Your task to perform on an android device: turn pop-ups on in chrome Image 0: 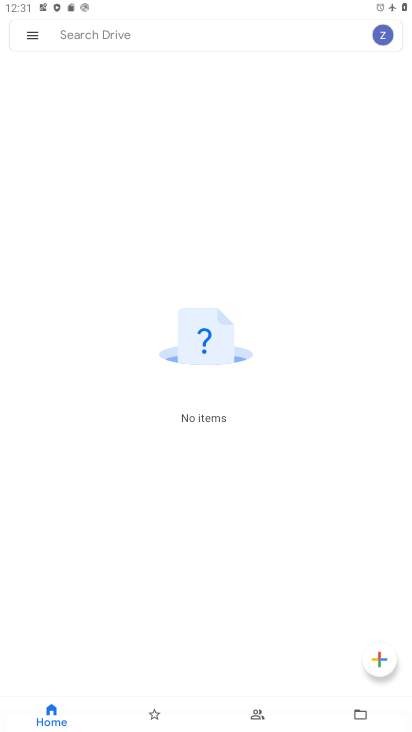
Step 0: press home button
Your task to perform on an android device: turn pop-ups on in chrome Image 1: 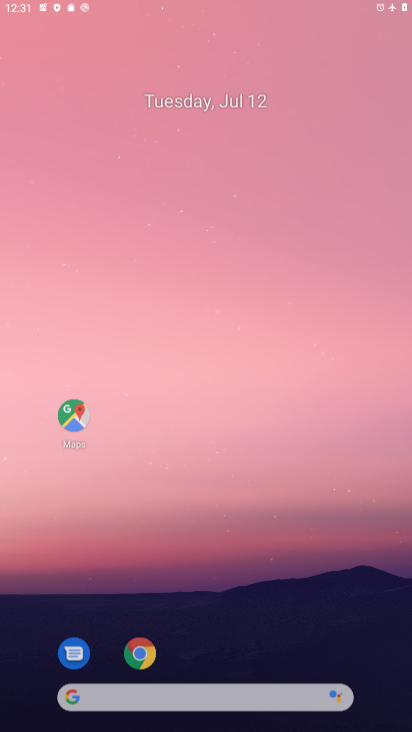
Step 1: drag from (191, 536) to (195, 96)
Your task to perform on an android device: turn pop-ups on in chrome Image 2: 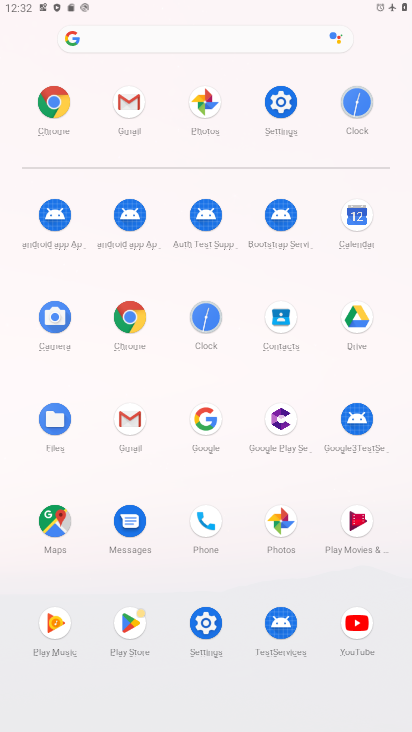
Step 2: click (120, 321)
Your task to perform on an android device: turn pop-ups on in chrome Image 3: 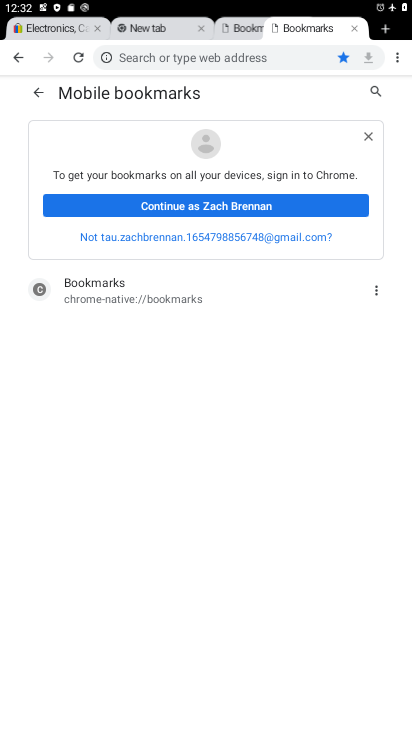
Step 3: click (398, 58)
Your task to perform on an android device: turn pop-ups on in chrome Image 4: 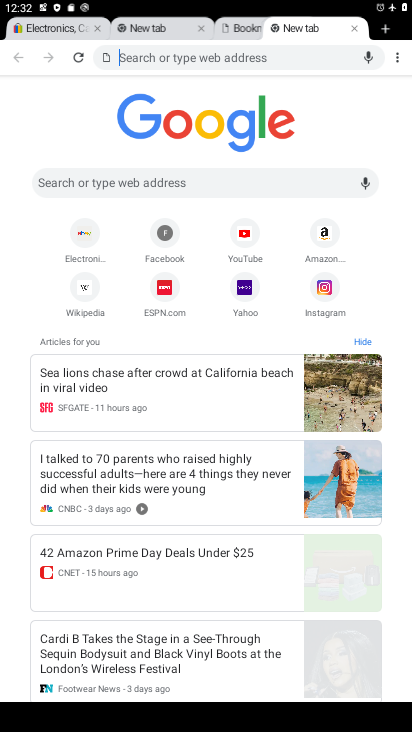
Step 4: click (393, 62)
Your task to perform on an android device: turn pop-ups on in chrome Image 5: 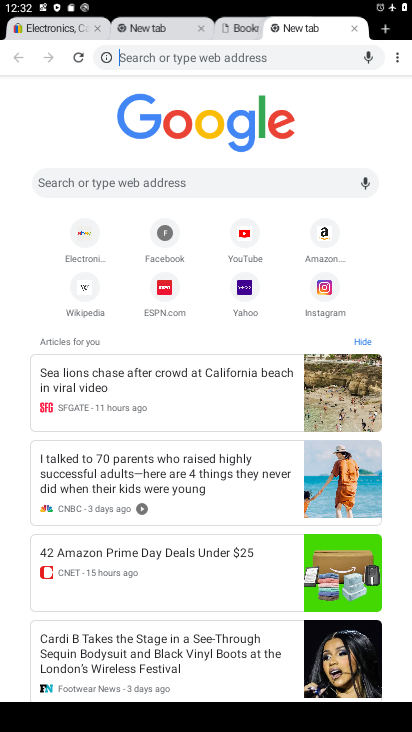
Step 5: click (389, 57)
Your task to perform on an android device: turn pop-ups on in chrome Image 6: 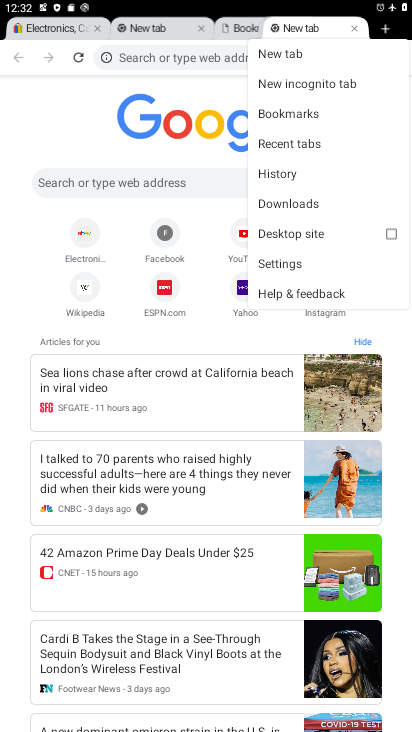
Step 6: click (282, 255)
Your task to perform on an android device: turn pop-ups on in chrome Image 7: 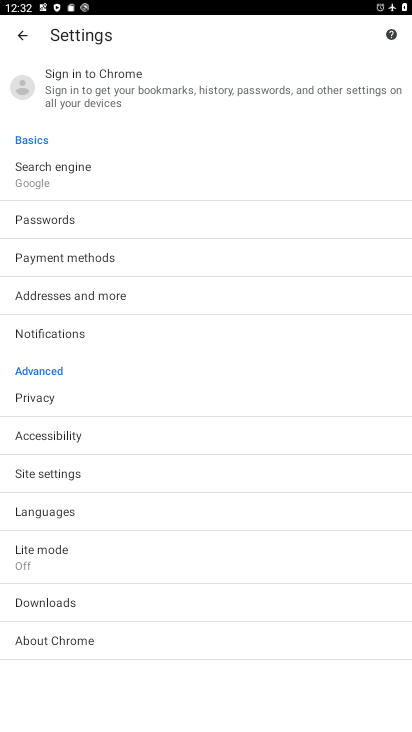
Step 7: click (63, 461)
Your task to perform on an android device: turn pop-ups on in chrome Image 8: 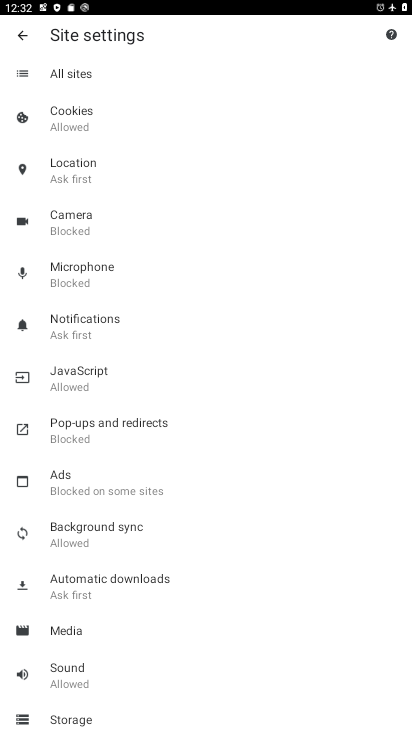
Step 8: click (103, 435)
Your task to perform on an android device: turn pop-ups on in chrome Image 9: 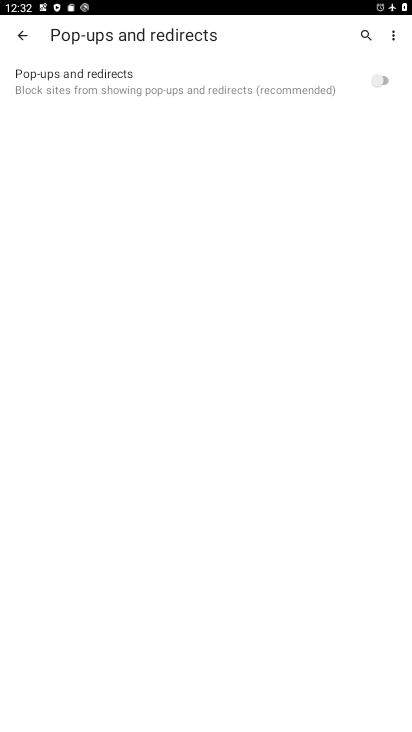
Step 9: click (343, 94)
Your task to perform on an android device: turn pop-ups on in chrome Image 10: 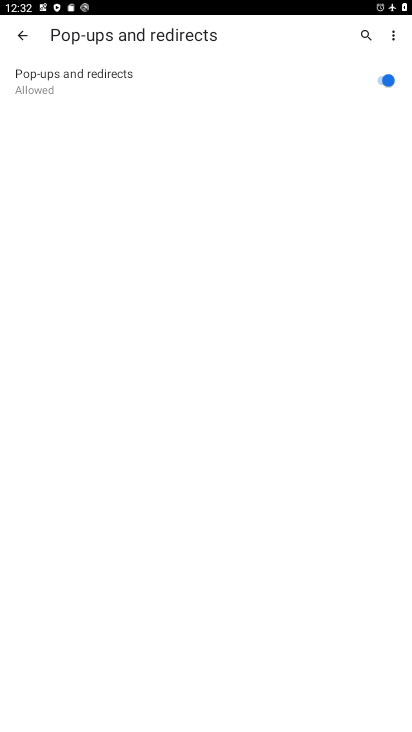
Step 10: task complete